Your task to perform on an android device: find which apps use the phone's location Image 0: 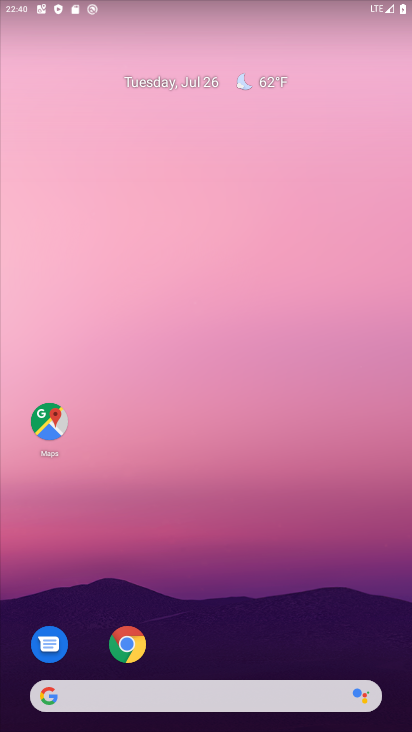
Step 0: drag from (204, 601) to (210, 20)
Your task to perform on an android device: find which apps use the phone's location Image 1: 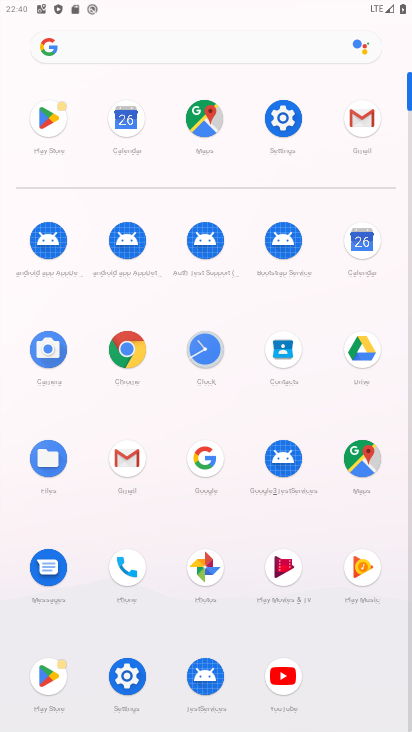
Step 1: click (279, 127)
Your task to perform on an android device: find which apps use the phone's location Image 2: 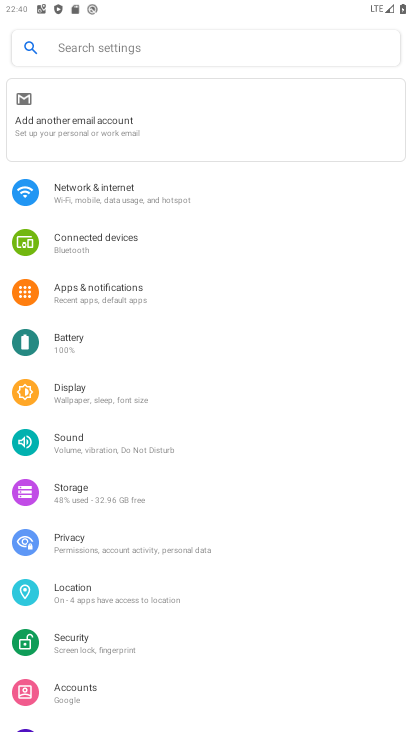
Step 2: click (51, 590)
Your task to perform on an android device: find which apps use the phone's location Image 3: 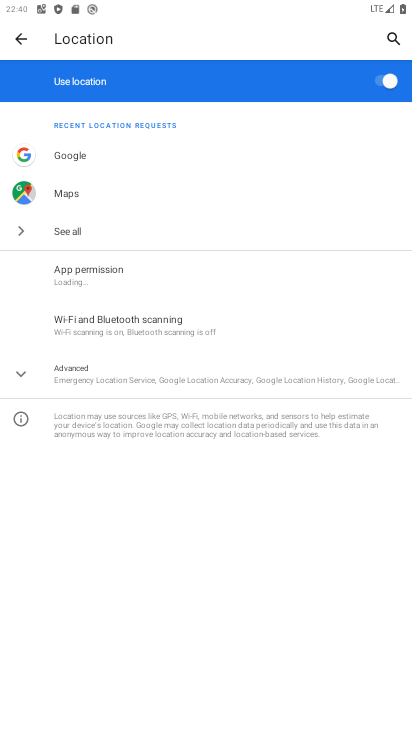
Step 3: click (54, 282)
Your task to perform on an android device: find which apps use the phone's location Image 4: 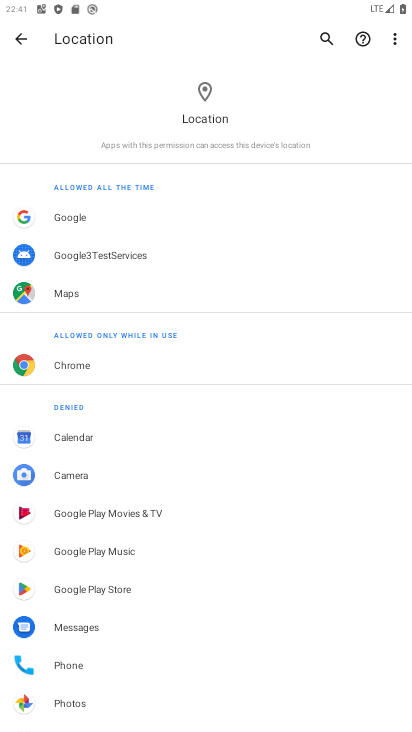
Step 4: task complete